Your task to perform on an android device: toggle pop-ups in chrome Image 0: 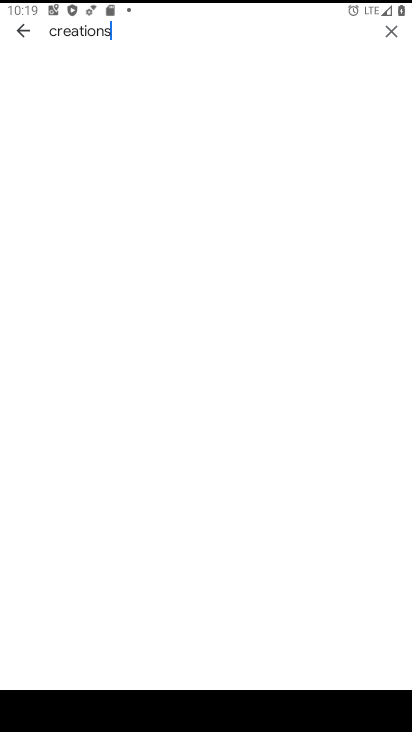
Step 0: press home button
Your task to perform on an android device: toggle pop-ups in chrome Image 1: 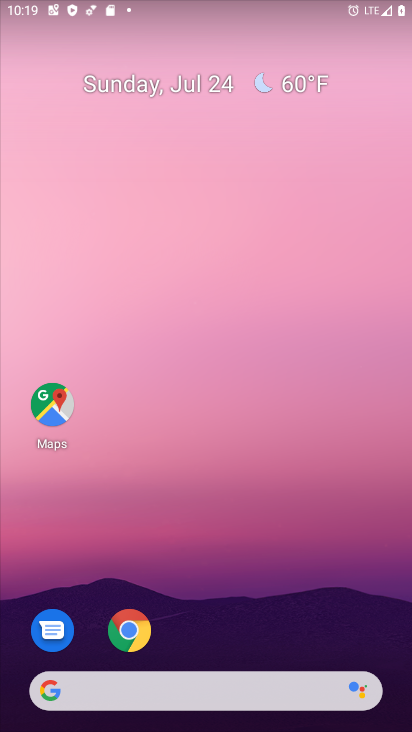
Step 1: click (138, 624)
Your task to perform on an android device: toggle pop-ups in chrome Image 2: 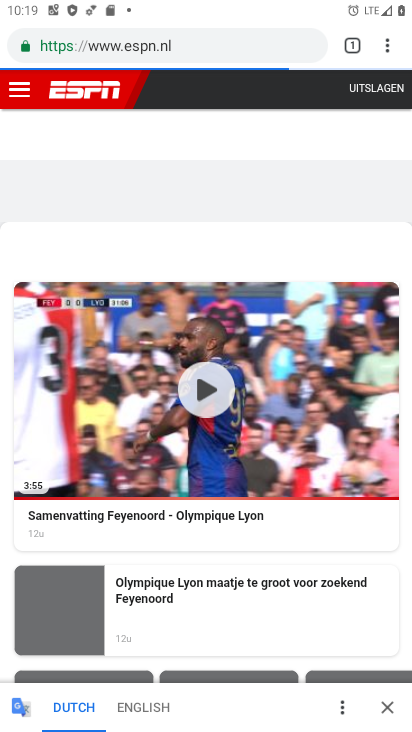
Step 2: click (384, 46)
Your task to perform on an android device: toggle pop-ups in chrome Image 3: 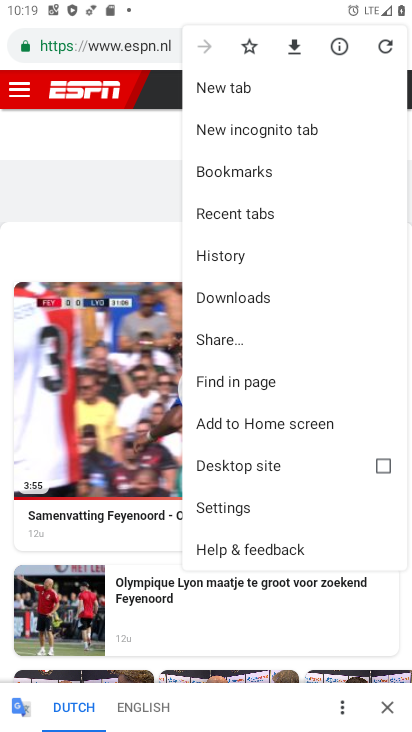
Step 3: click (227, 508)
Your task to perform on an android device: toggle pop-ups in chrome Image 4: 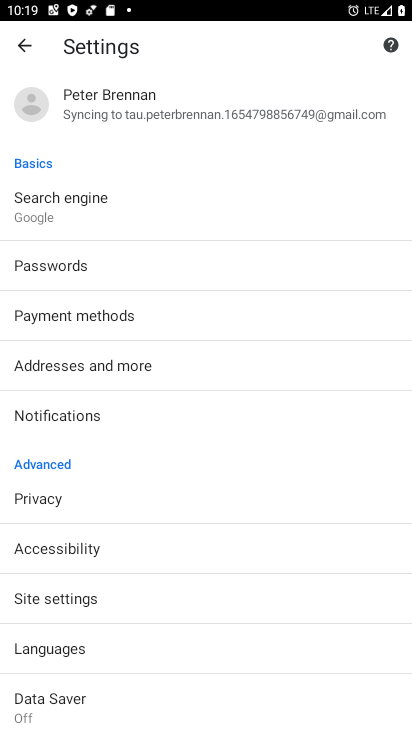
Step 4: drag from (114, 649) to (121, 496)
Your task to perform on an android device: toggle pop-ups in chrome Image 5: 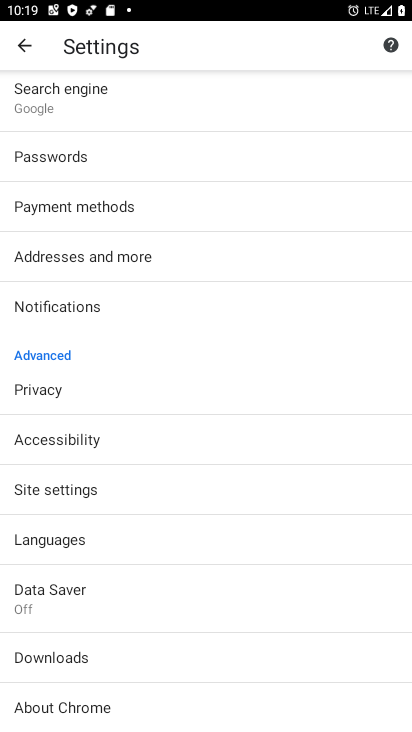
Step 5: click (64, 495)
Your task to perform on an android device: toggle pop-ups in chrome Image 6: 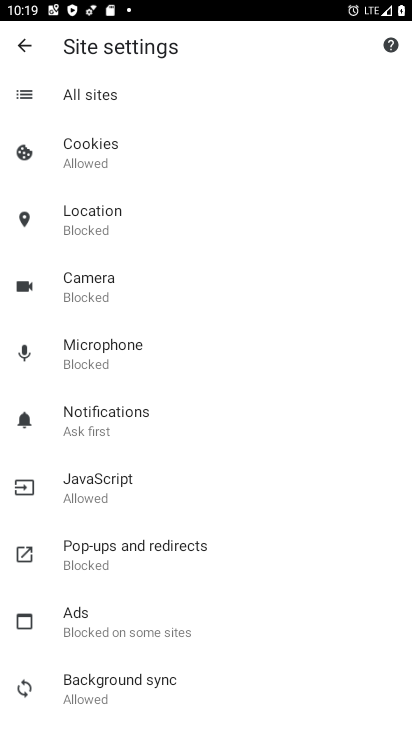
Step 6: click (109, 546)
Your task to perform on an android device: toggle pop-ups in chrome Image 7: 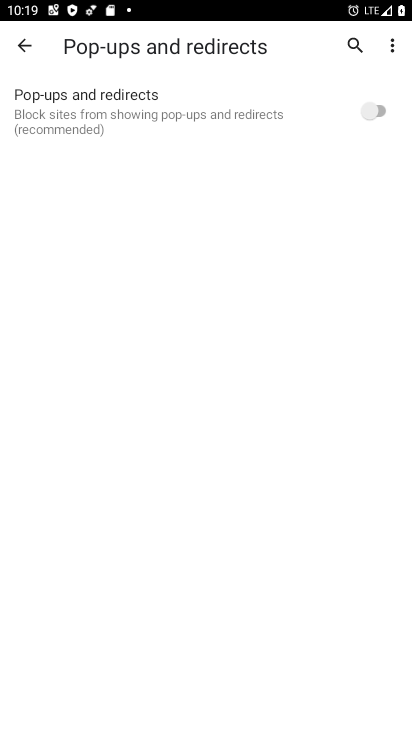
Step 7: click (338, 120)
Your task to perform on an android device: toggle pop-ups in chrome Image 8: 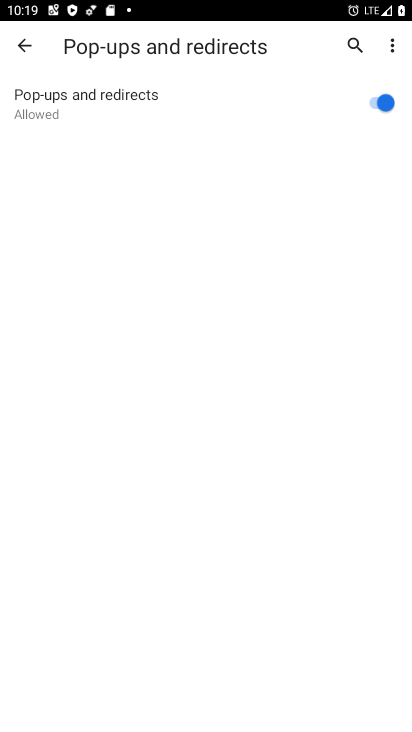
Step 8: task complete